Your task to perform on an android device: delete a single message in the gmail app Image 0: 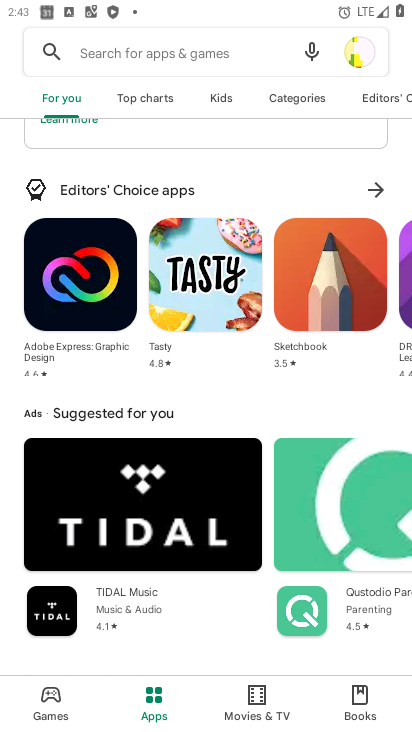
Step 0: press home button
Your task to perform on an android device: delete a single message in the gmail app Image 1: 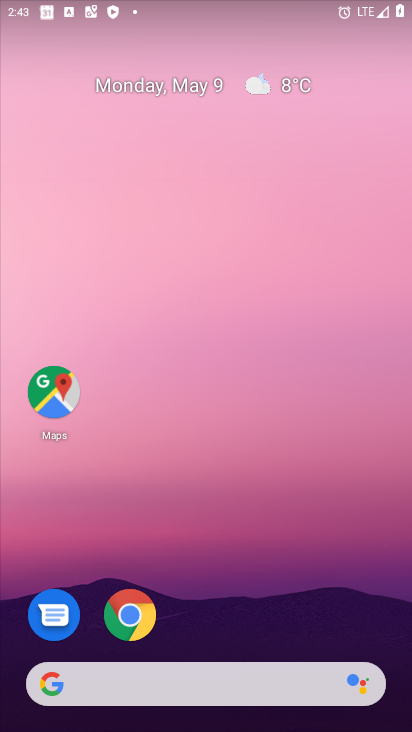
Step 1: drag from (375, 630) to (294, 18)
Your task to perform on an android device: delete a single message in the gmail app Image 2: 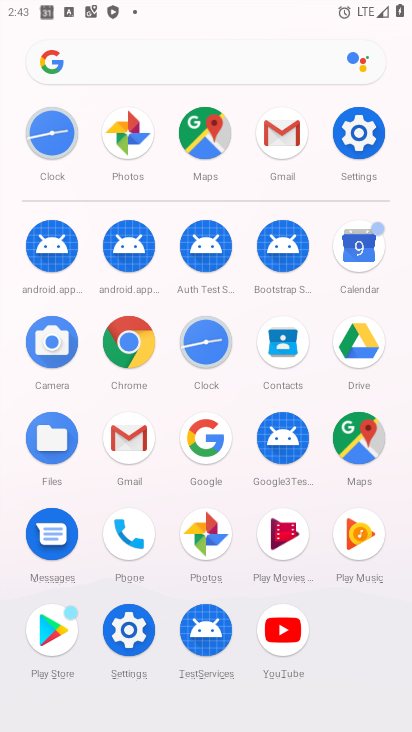
Step 2: click (124, 435)
Your task to perform on an android device: delete a single message in the gmail app Image 3: 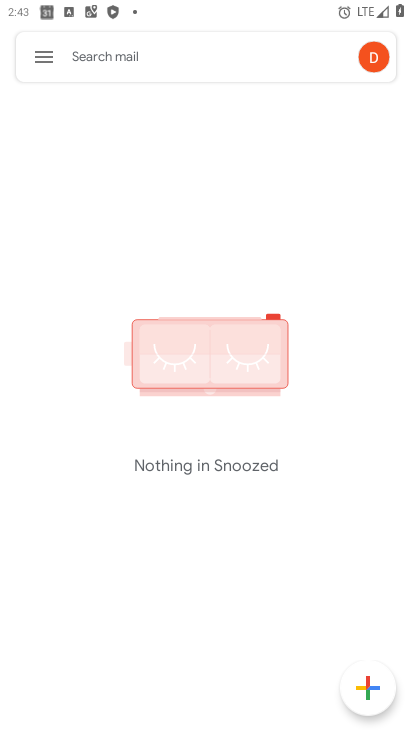
Step 3: click (39, 54)
Your task to perform on an android device: delete a single message in the gmail app Image 4: 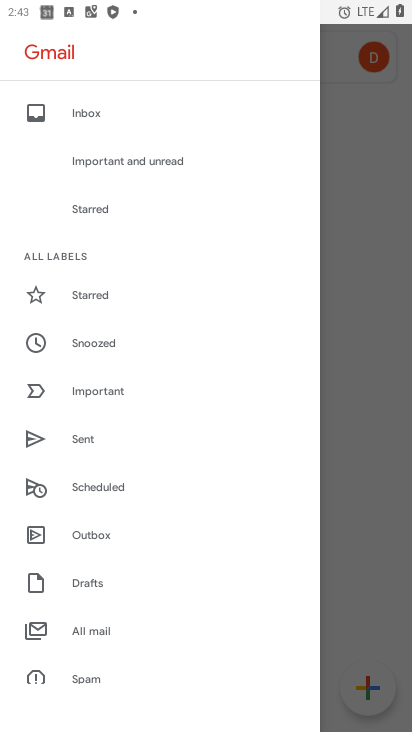
Step 4: click (83, 631)
Your task to perform on an android device: delete a single message in the gmail app Image 5: 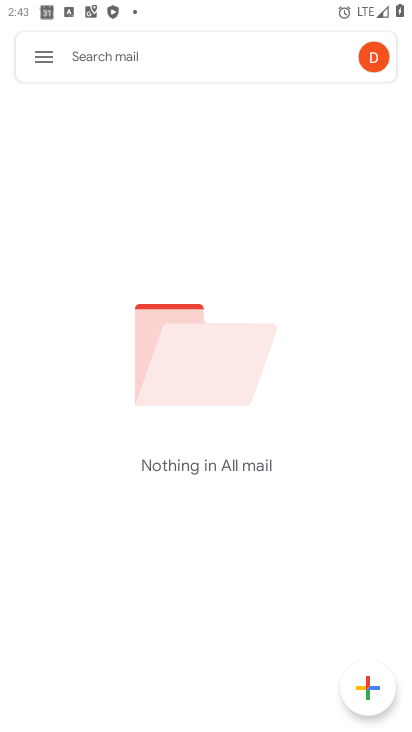
Step 5: task complete